Your task to perform on an android device: open chrome privacy settings Image 0: 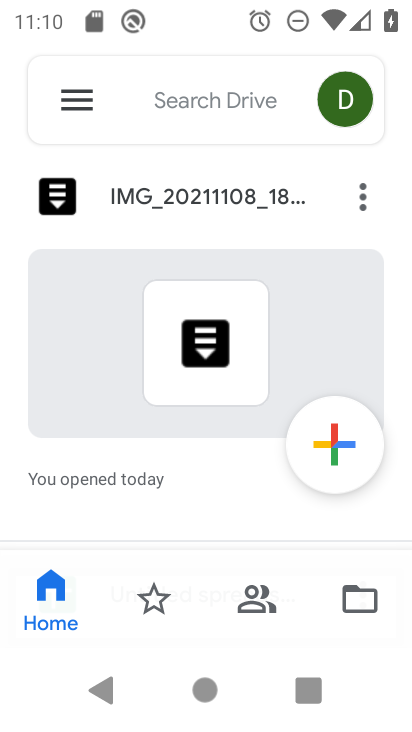
Step 0: press home button
Your task to perform on an android device: open chrome privacy settings Image 1: 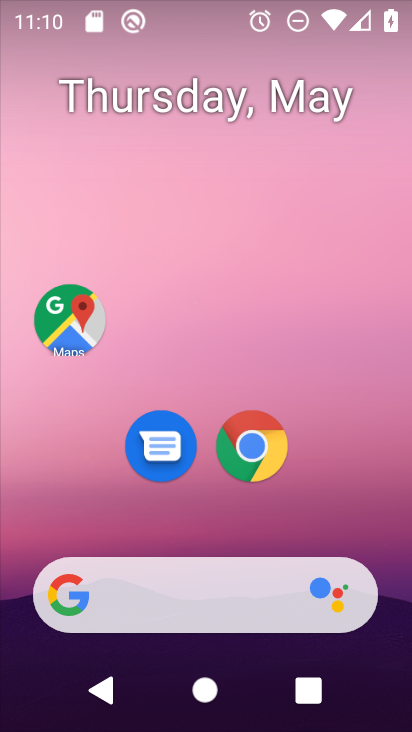
Step 1: drag from (282, 610) to (410, 215)
Your task to perform on an android device: open chrome privacy settings Image 2: 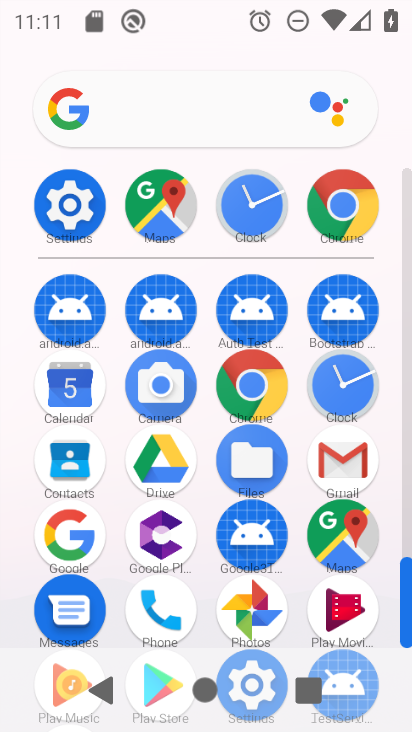
Step 2: click (76, 218)
Your task to perform on an android device: open chrome privacy settings Image 3: 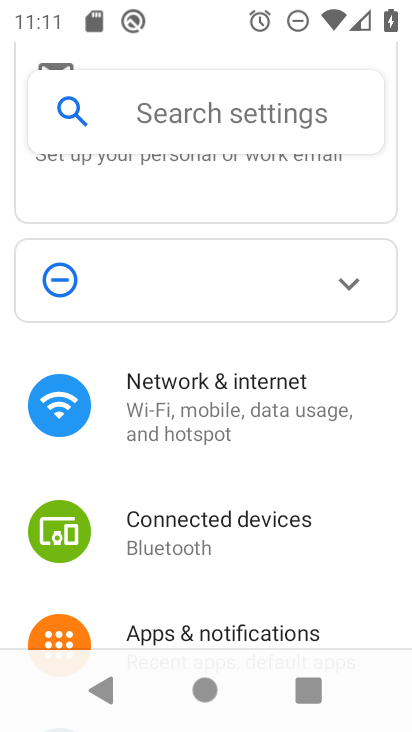
Step 3: click (186, 112)
Your task to perform on an android device: open chrome privacy settings Image 4: 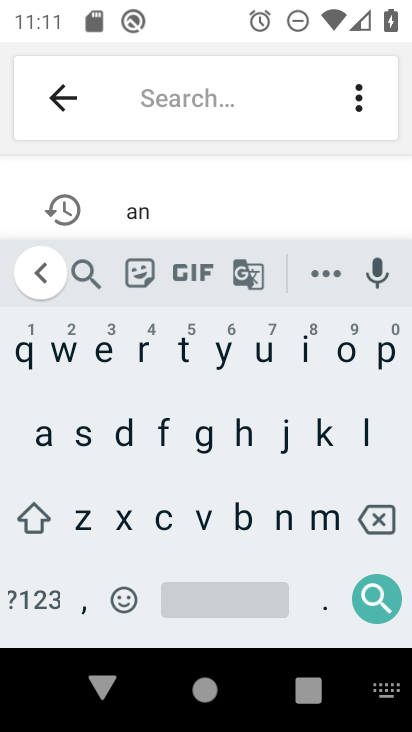
Step 4: click (378, 361)
Your task to perform on an android device: open chrome privacy settings Image 5: 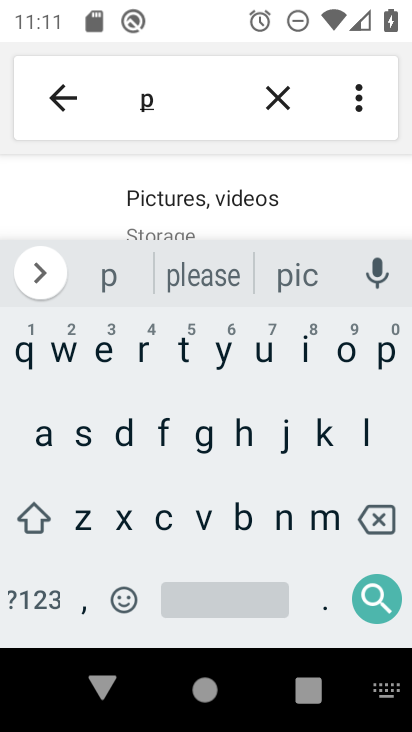
Step 5: click (138, 345)
Your task to perform on an android device: open chrome privacy settings Image 6: 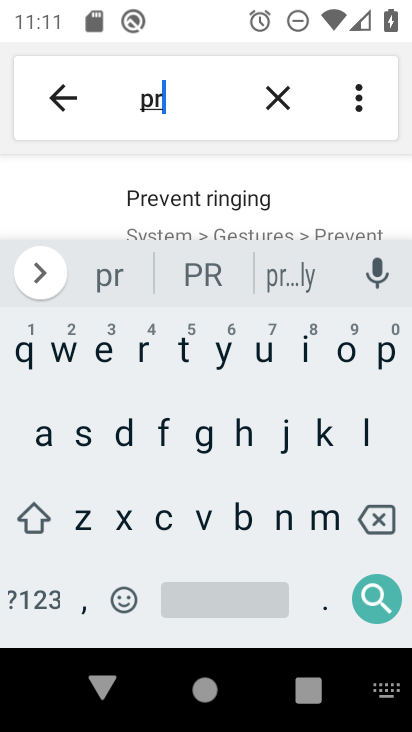
Step 6: click (301, 357)
Your task to perform on an android device: open chrome privacy settings Image 7: 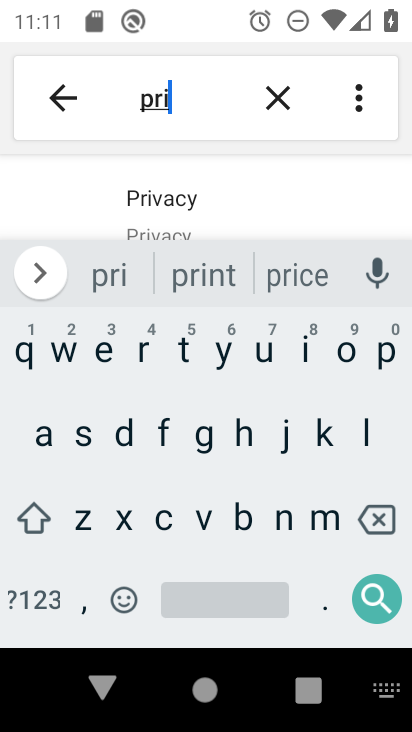
Step 7: click (169, 198)
Your task to perform on an android device: open chrome privacy settings Image 8: 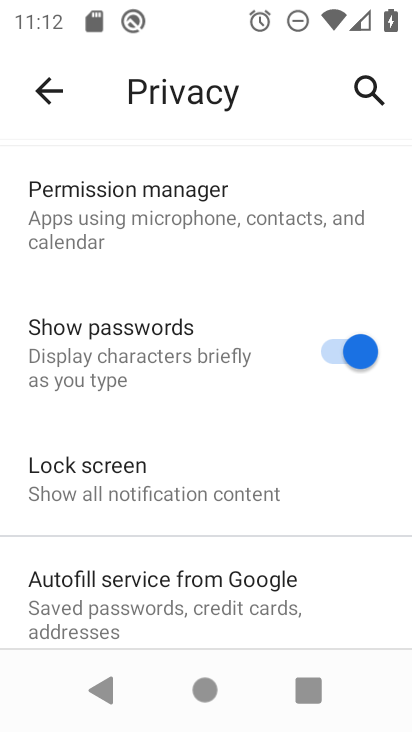
Step 8: task complete